Your task to perform on an android device: Search for seafood restaurants on Google Maps Image 0: 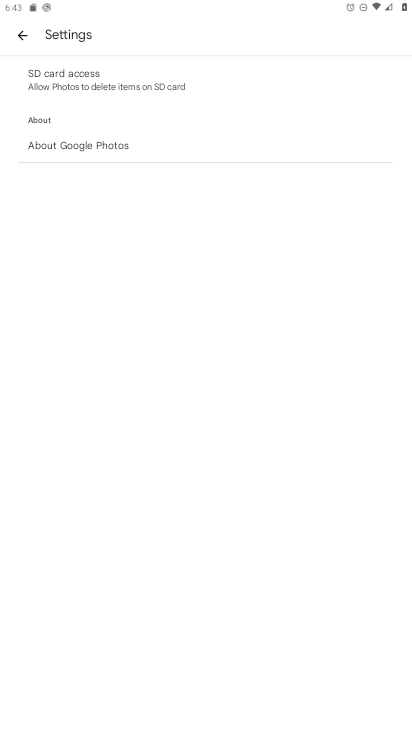
Step 0: press home button
Your task to perform on an android device: Search for seafood restaurants on Google Maps Image 1: 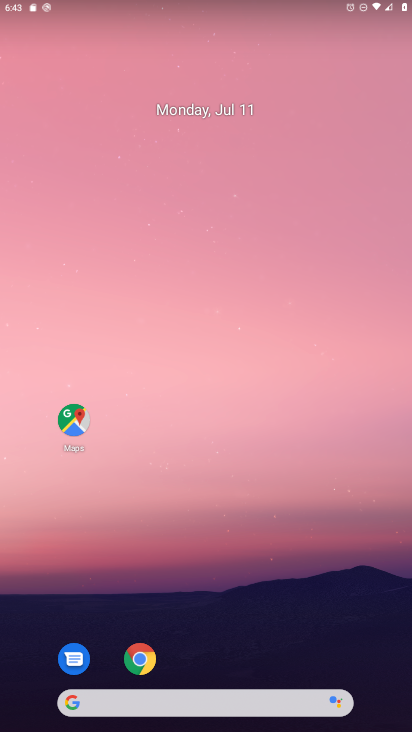
Step 1: click (74, 422)
Your task to perform on an android device: Search for seafood restaurants on Google Maps Image 2: 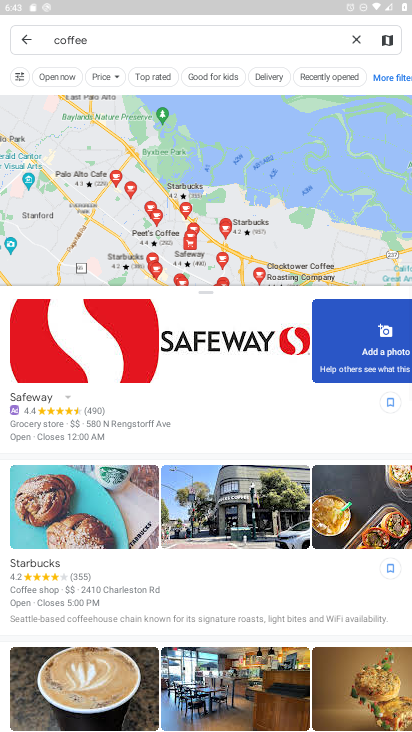
Step 2: click (356, 39)
Your task to perform on an android device: Search for seafood restaurants on Google Maps Image 3: 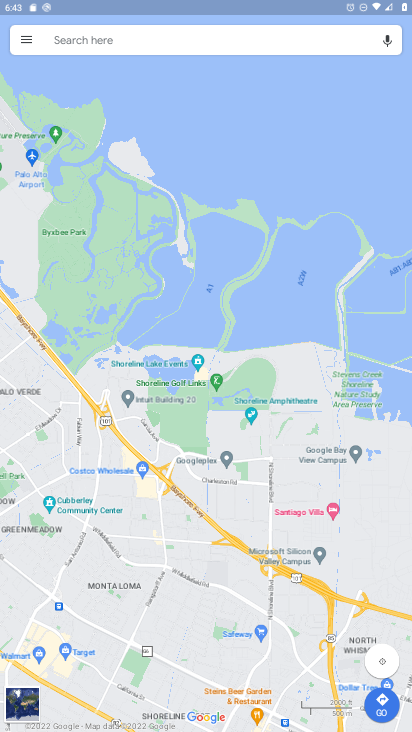
Step 3: click (160, 37)
Your task to perform on an android device: Search for seafood restaurants on Google Maps Image 4: 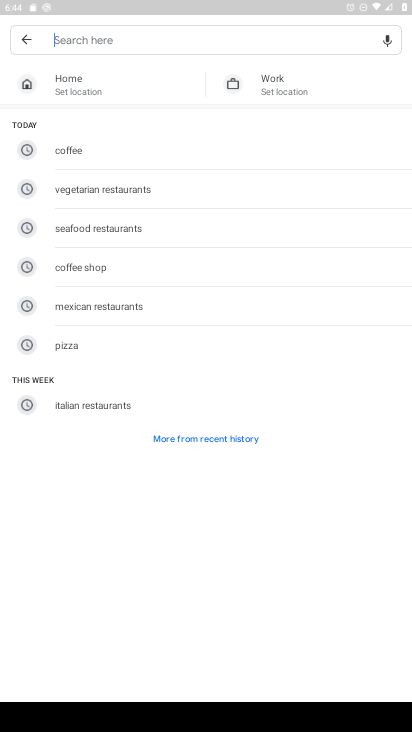
Step 4: type "seafood restaurants"
Your task to perform on an android device: Search for seafood restaurants on Google Maps Image 5: 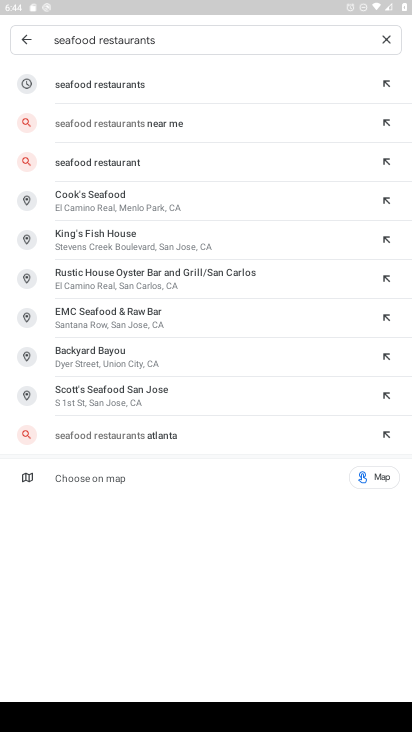
Step 5: click (122, 84)
Your task to perform on an android device: Search for seafood restaurants on Google Maps Image 6: 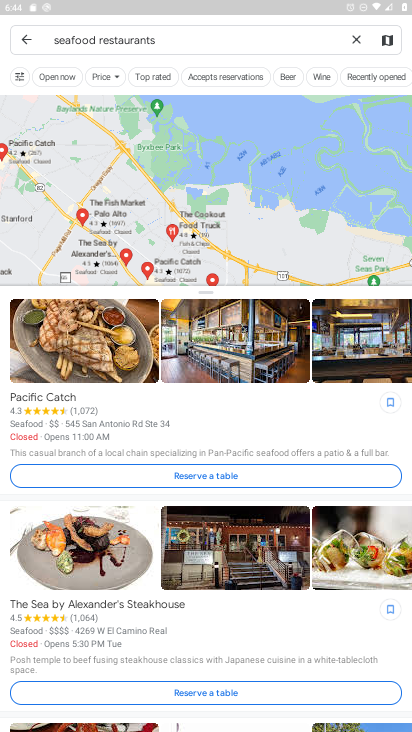
Step 6: task complete